Your task to perform on an android device: change notification settings in the gmail app Image 0: 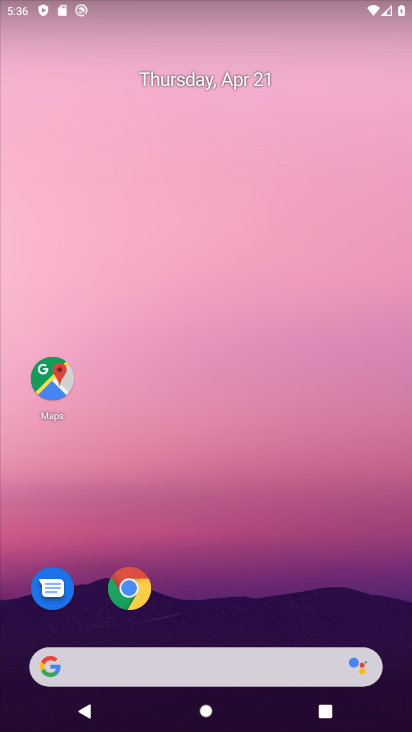
Step 0: click (248, 192)
Your task to perform on an android device: change notification settings in the gmail app Image 1: 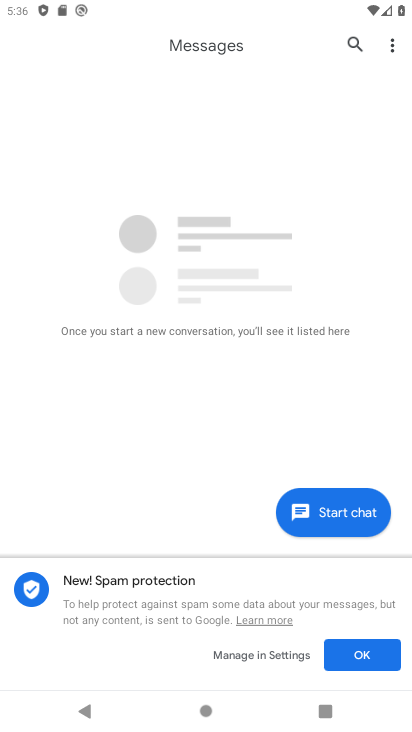
Step 1: press home button
Your task to perform on an android device: change notification settings in the gmail app Image 2: 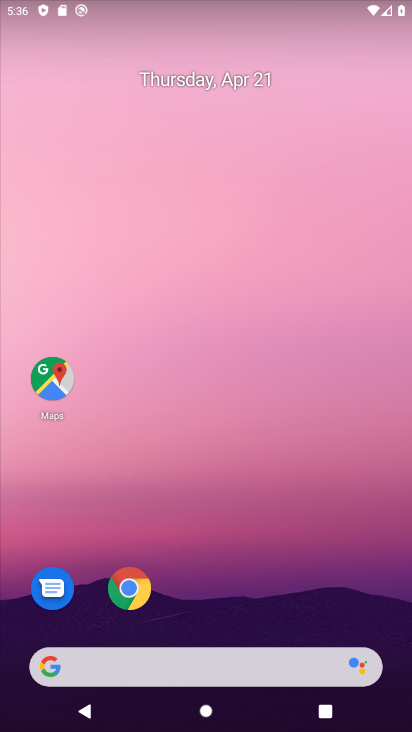
Step 2: drag from (239, 615) to (232, 210)
Your task to perform on an android device: change notification settings in the gmail app Image 3: 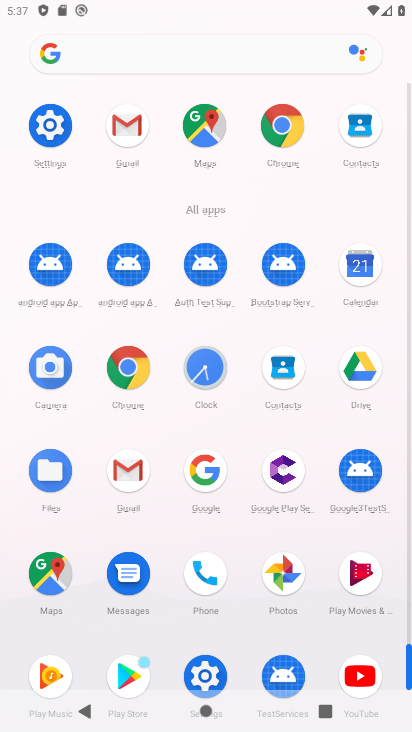
Step 3: click (218, 139)
Your task to perform on an android device: change notification settings in the gmail app Image 4: 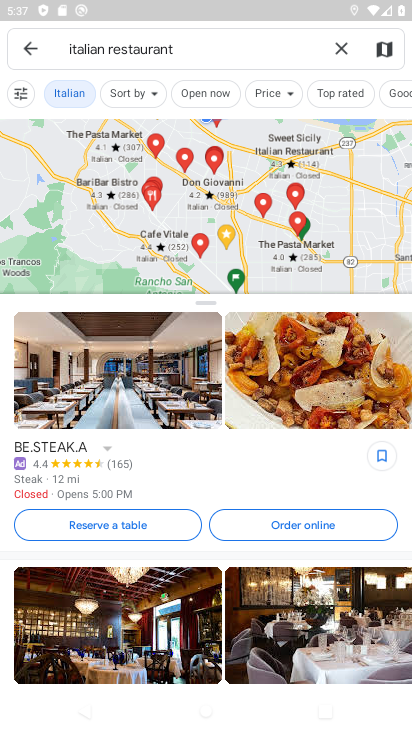
Step 4: press back button
Your task to perform on an android device: change notification settings in the gmail app Image 5: 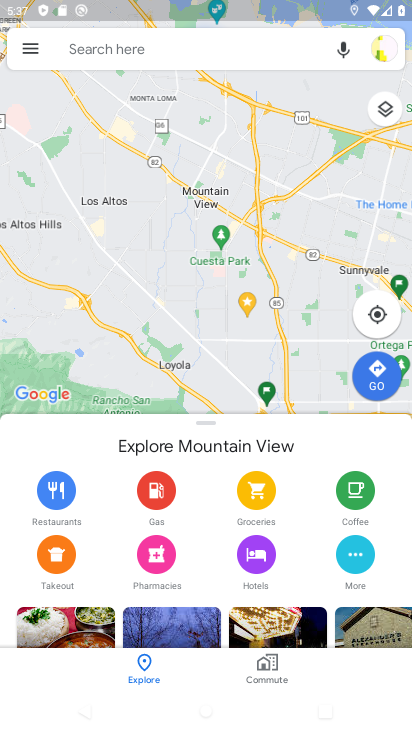
Step 5: press back button
Your task to perform on an android device: change notification settings in the gmail app Image 6: 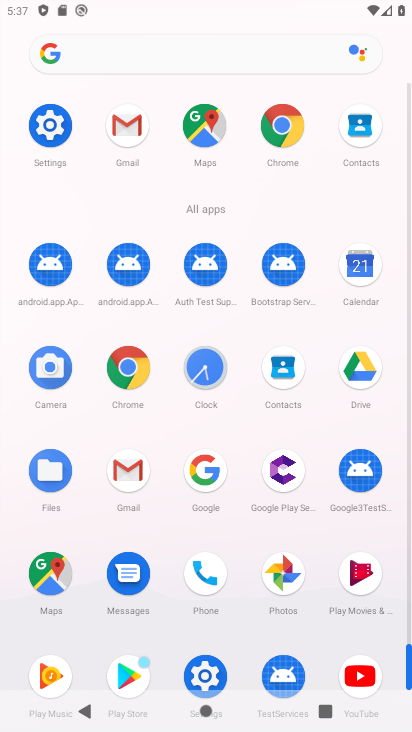
Step 6: click (118, 135)
Your task to perform on an android device: change notification settings in the gmail app Image 7: 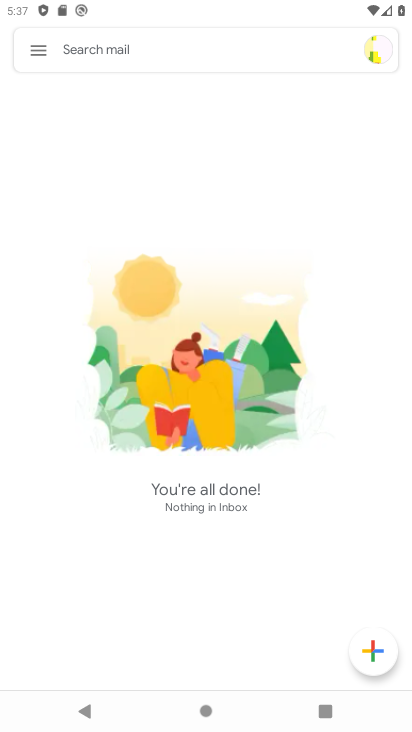
Step 7: click (43, 54)
Your task to perform on an android device: change notification settings in the gmail app Image 8: 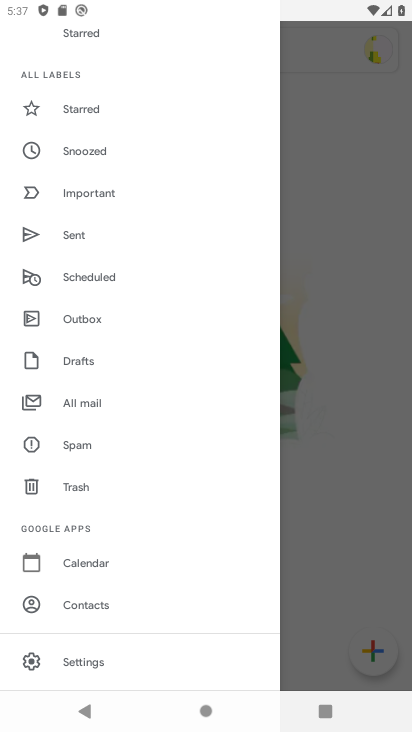
Step 8: click (101, 664)
Your task to perform on an android device: change notification settings in the gmail app Image 9: 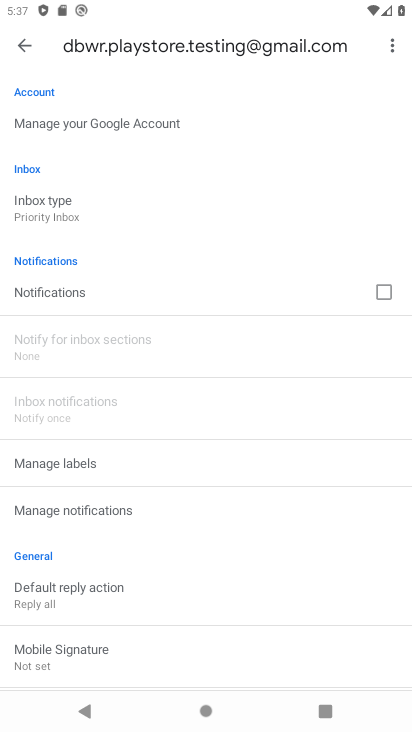
Step 9: click (54, 292)
Your task to perform on an android device: change notification settings in the gmail app Image 10: 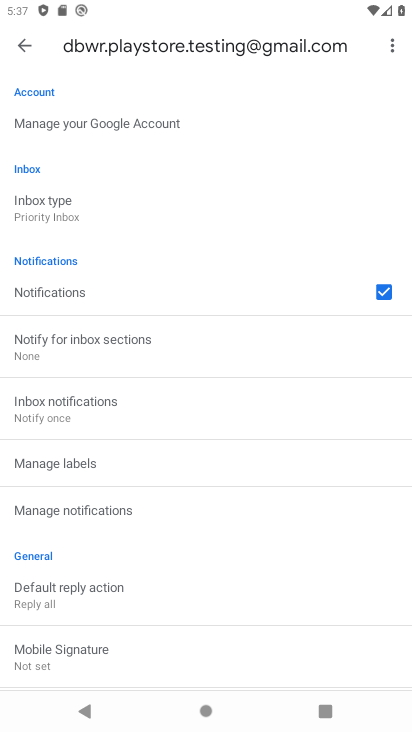
Step 10: task complete